Your task to perform on an android device: toggle notifications settings in the gmail app Image 0: 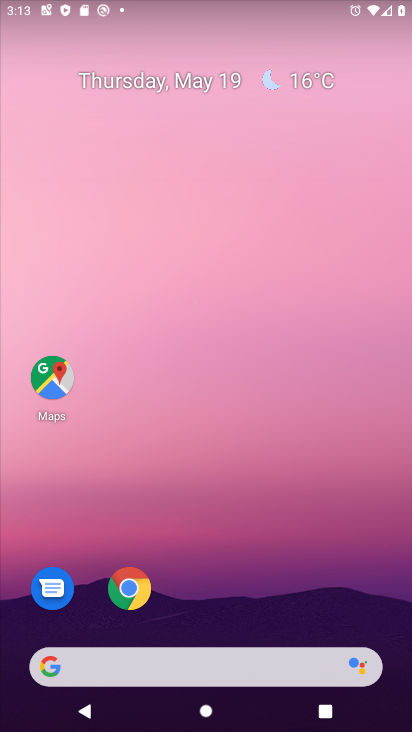
Step 0: drag from (272, 559) to (217, 140)
Your task to perform on an android device: toggle notifications settings in the gmail app Image 1: 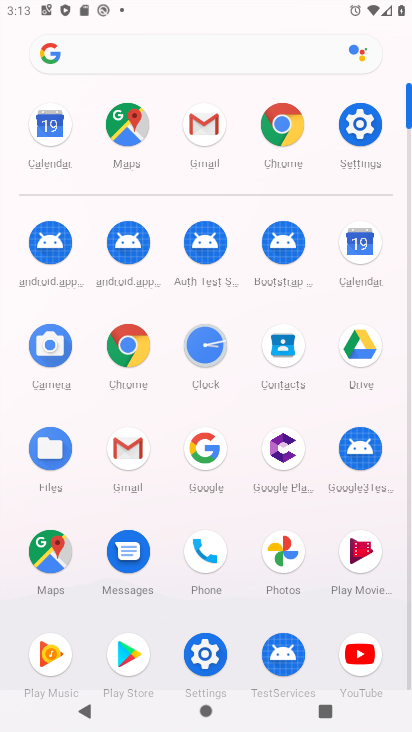
Step 1: click (210, 123)
Your task to perform on an android device: toggle notifications settings in the gmail app Image 2: 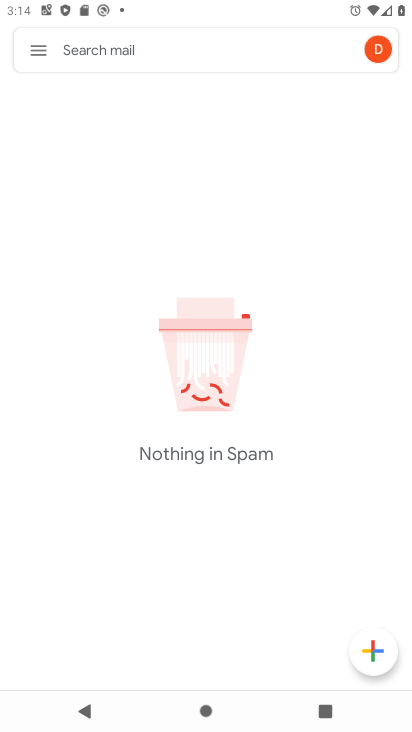
Step 2: click (41, 41)
Your task to perform on an android device: toggle notifications settings in the gmail app Image 3: 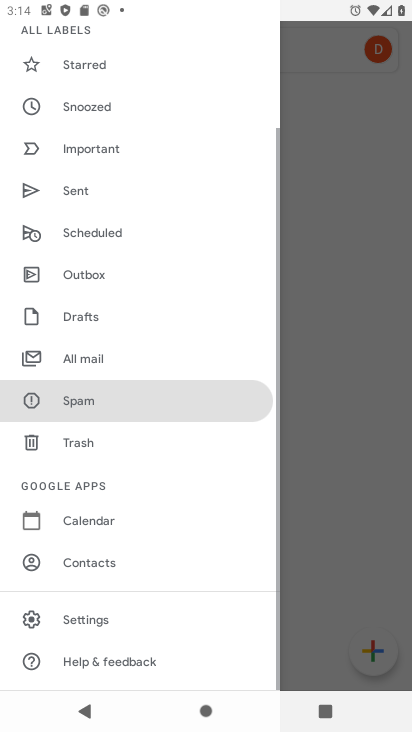
Step 3: click (93, 625)
Your task to perform on an android device: toggle notifications settings in the gmail app Image 4: 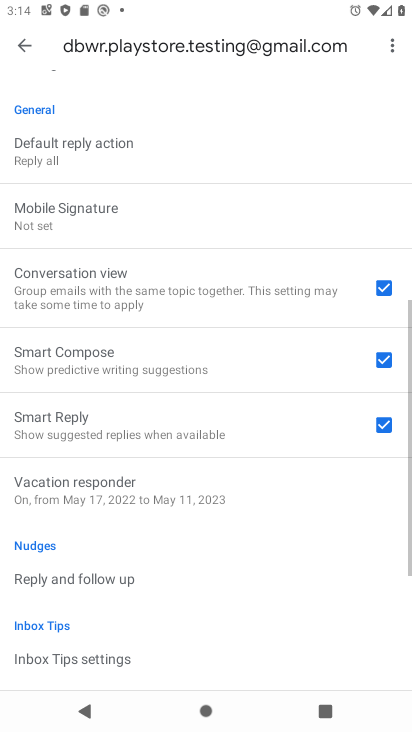
Step 4: drag from (175, 569) to (230, 692)
Your task to perform on an android device: toggle notifications settings in the gmail app Image 5: 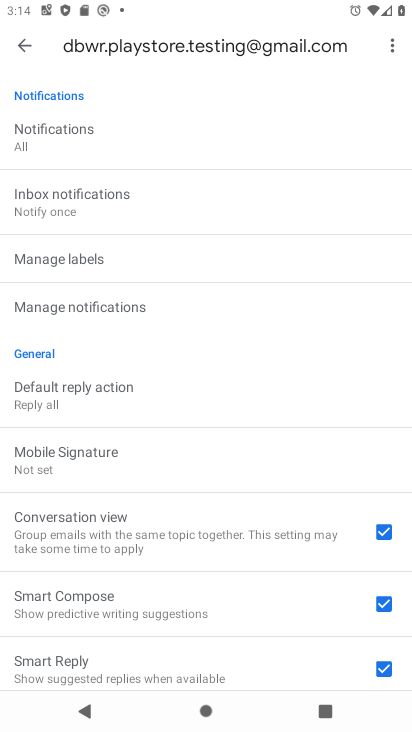
Step 5: click (107, 304)
Your task to perform on an android device: toggle notifications settings in the gmail app Image 6: 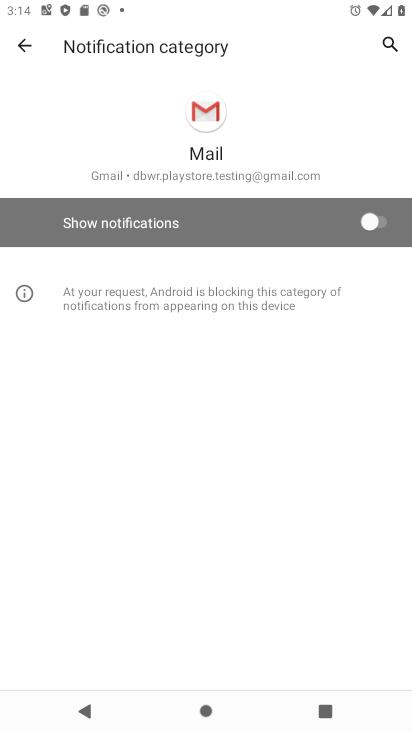
Step 6: click (360, 206)
Your task to perform on an android device: toggle notifications settings in the gmail app Image 7: 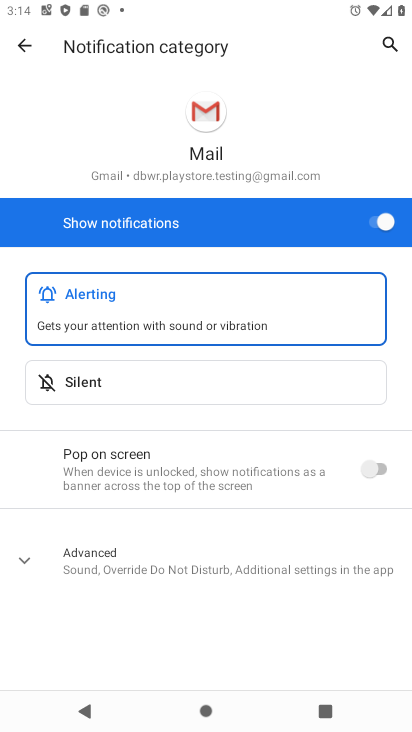
Step 7: task complete